Your task to perform on an android device: Open notification settings Image 0: 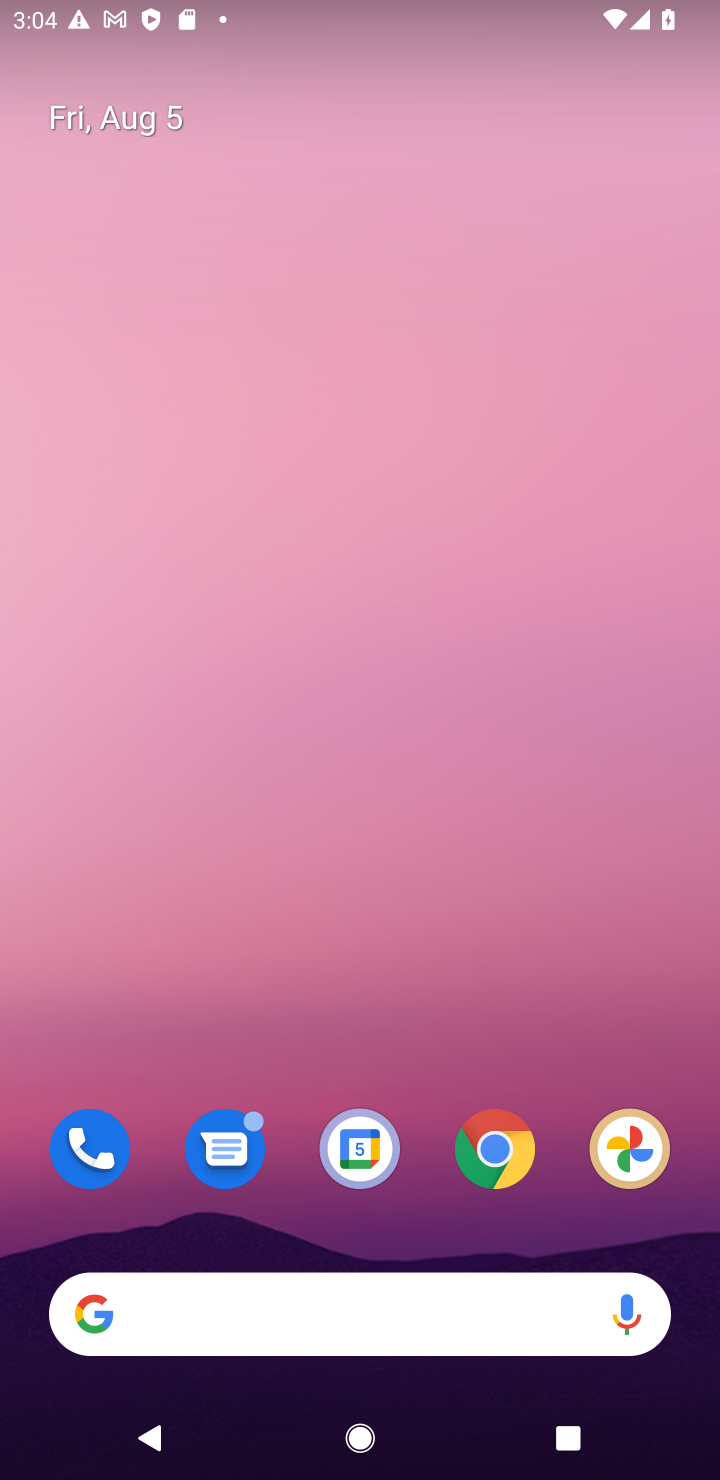
Step 0: drag from (302, 955) to (440, 118)
Your task to perform on an android device: Open notification settings Image 1: 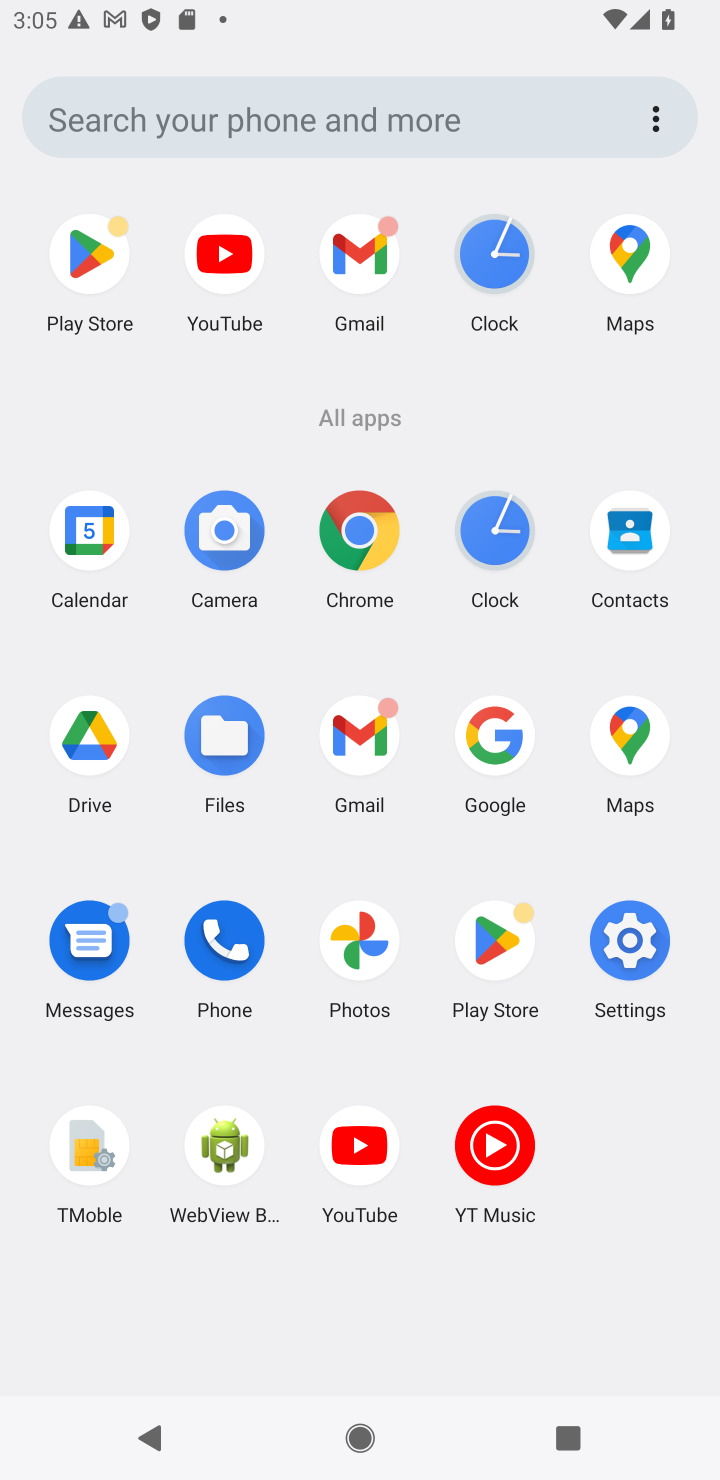
Step 1: click (619, 941)
Your task to perform on an android device: Open notification settings Image 2: 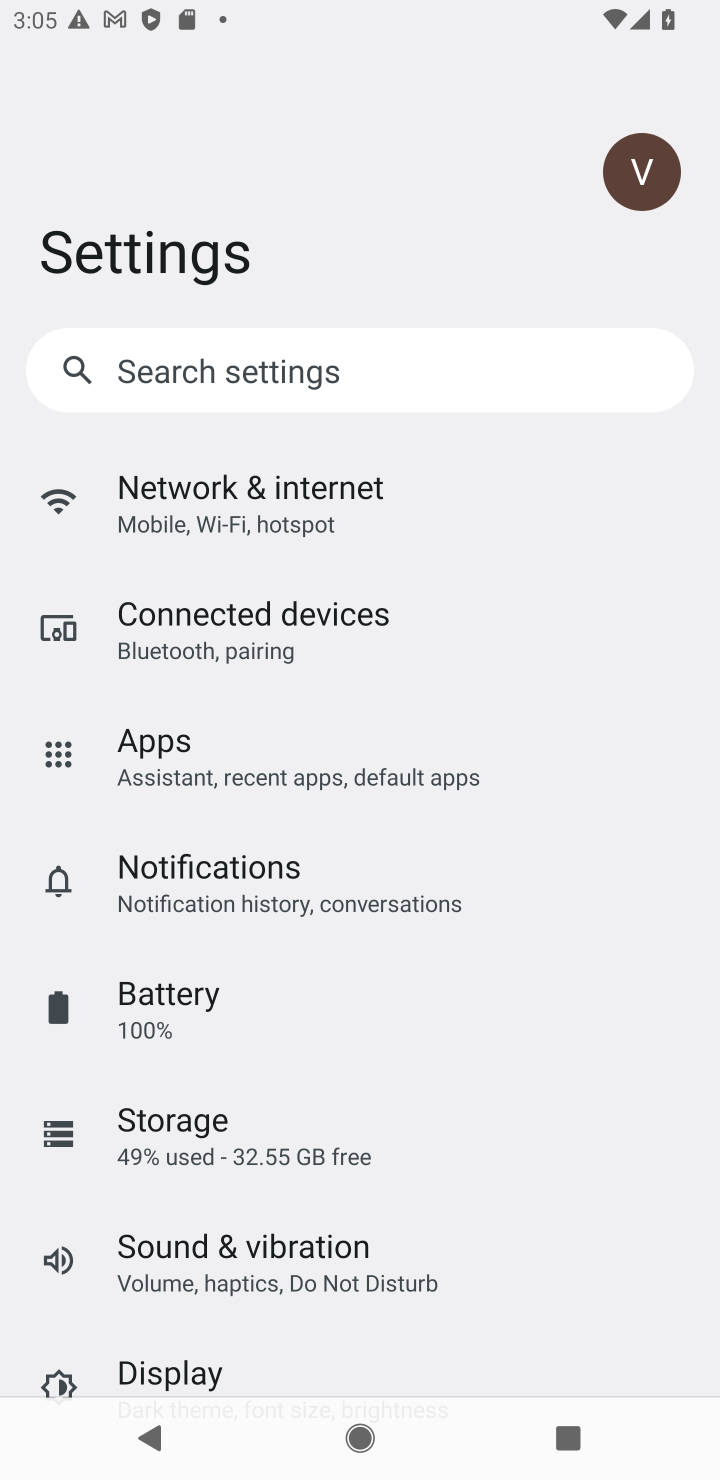
Step 2: click (325, 903)
Your task to perform on an android device: Open notification settings Image 3: 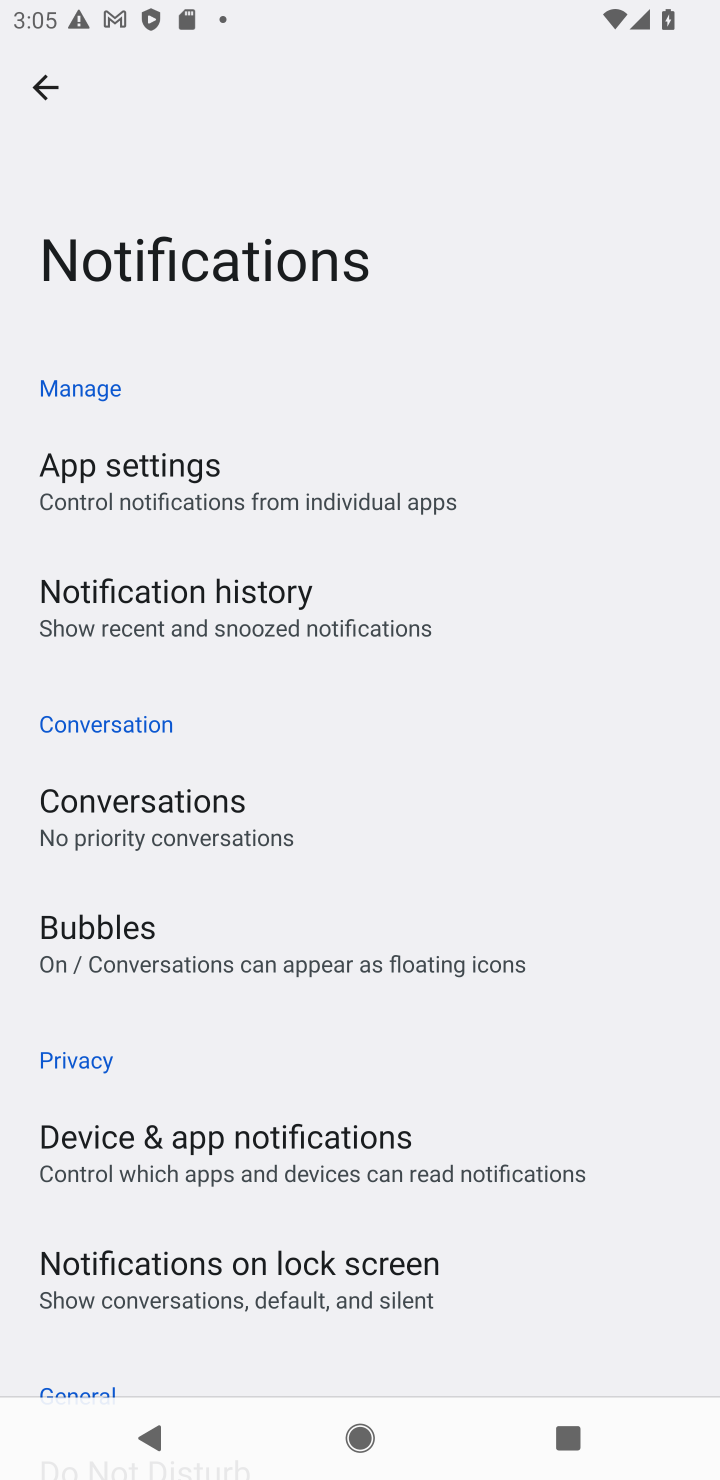
Step 3: task complete